Your task to perform on an android device: Do I have any events today? Image 0: 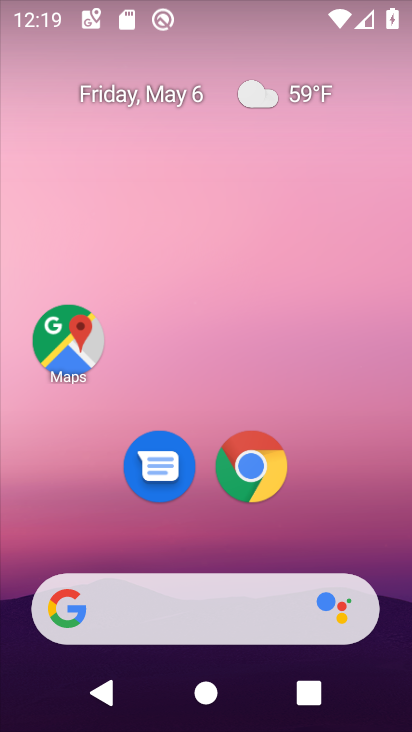
Step 0: drag from (384, 545) to (316, 79)
Your task to perform on an android device: Do I have any events today? Image 1: 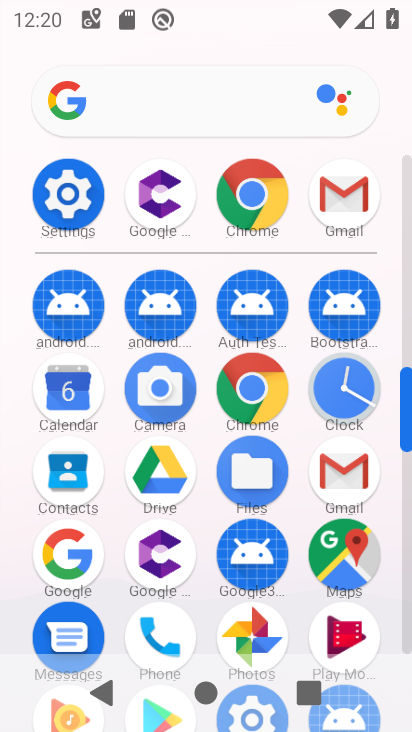
Step 1: click (57, 394)
Your task to perform on an android device: Do I have any events today? Image 2: 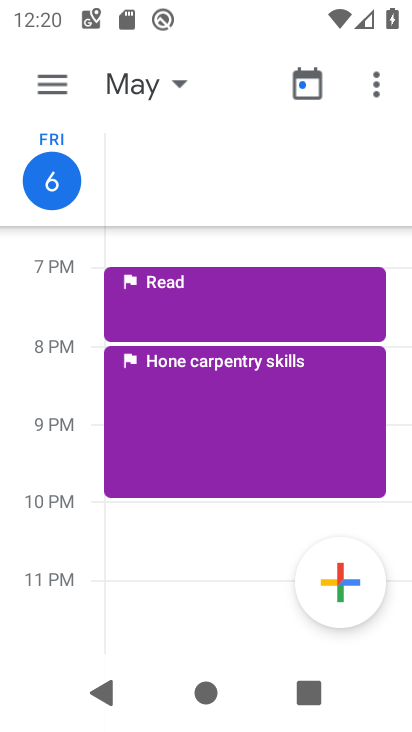
Step 2: task complete